Your task to perform on an android device: toggle translation in the chrome app Image 0: 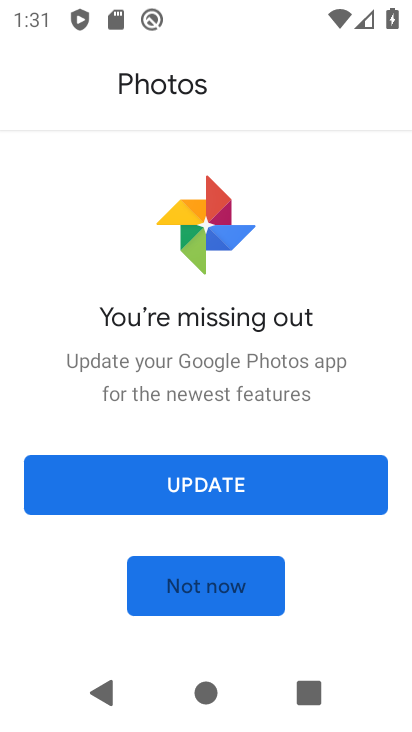
Step 0: press home button
Your task to perform on an android device: toggle translation in the chrome app Image 1: 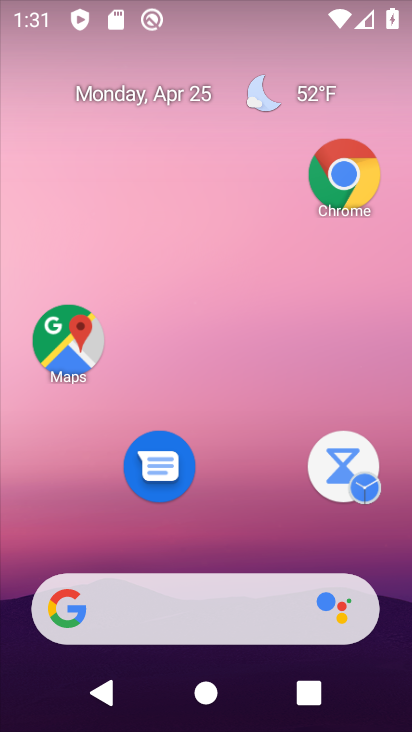
Step 1: click (337, 185)
Your task to perform on an android device: toggle translation in the chrome app Image 2: 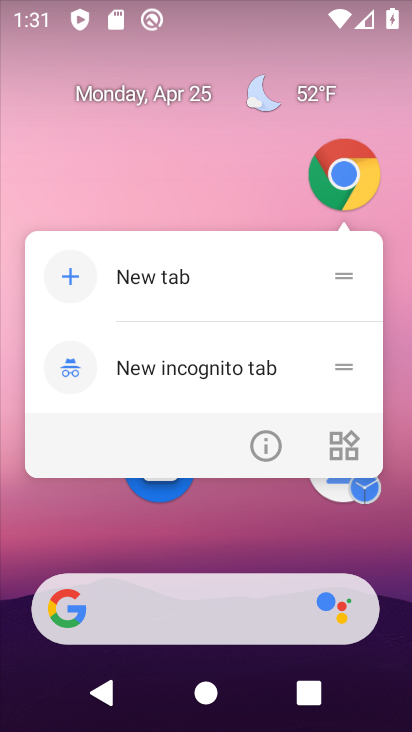
Step 2: click (337, 185)
Your task to perform on an android device: toggle translation in the chrome app Image 3: 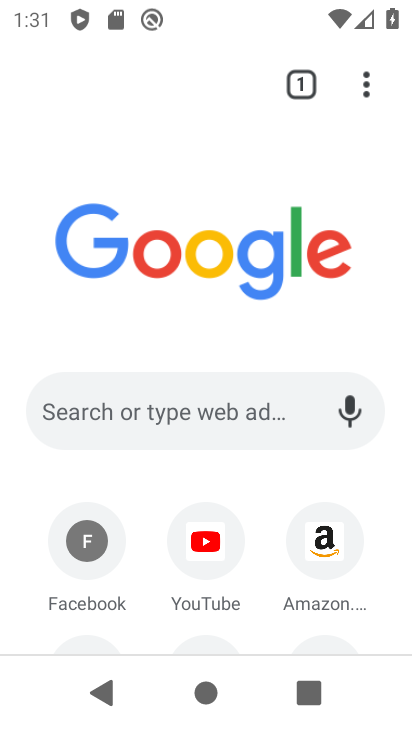
Step 3: click (364, 84)
Your task to perform on an android device: toggle translation in the chrome app Image 4: 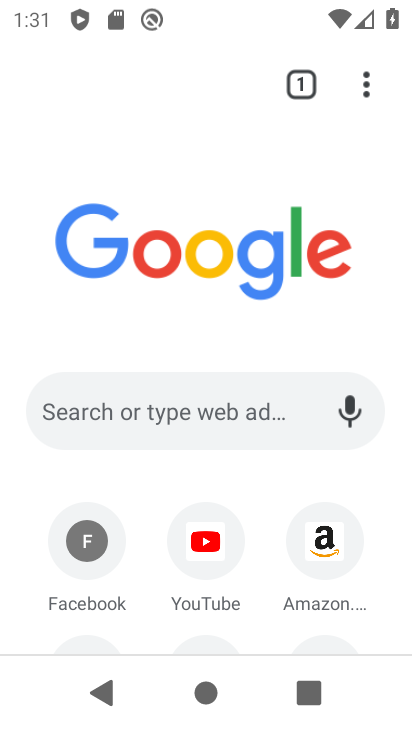
Step 4: click (364, 84)
Your task to perform on an android device: toggle translation in the chrome app Image 5: 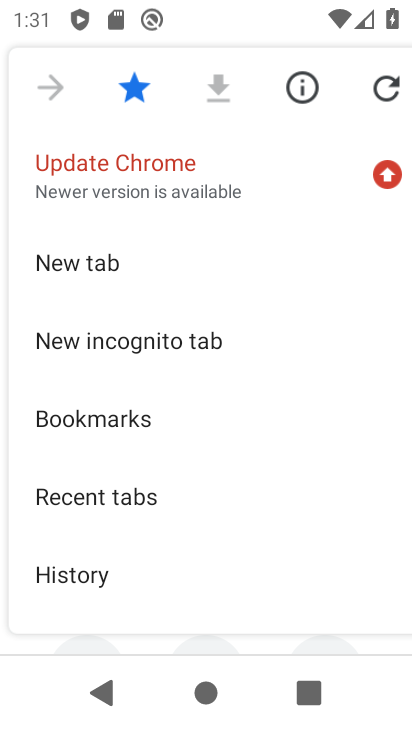
Step 5: drag from (262, 529) to (248, 238)
Your task to perform on an android device: toggle translation in the chrome app Image 6: 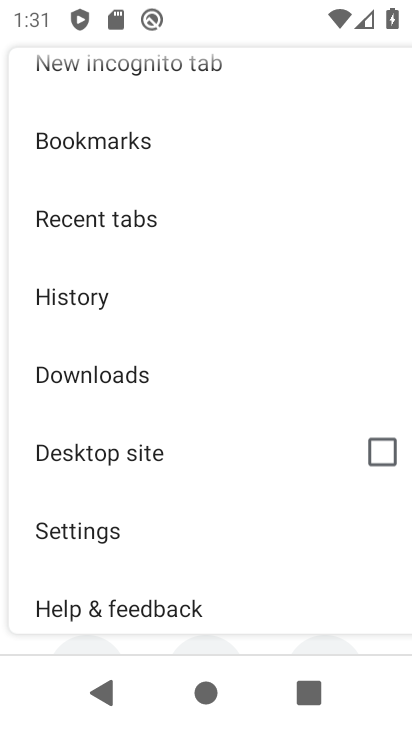
Step 6: click (130, 537)
Your task to perform on an android device: toggle translation in the chrome app Image 7: 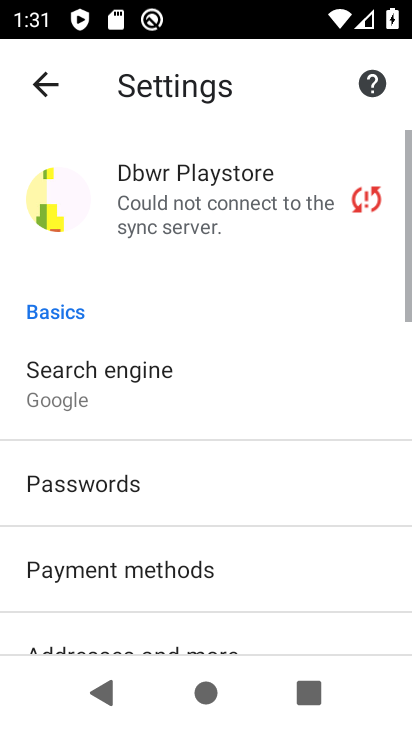
Step 7: drag from (130, 537) to (235, 109)
Your task to perform on an android device: toggle translation in the chrome app Image 8: 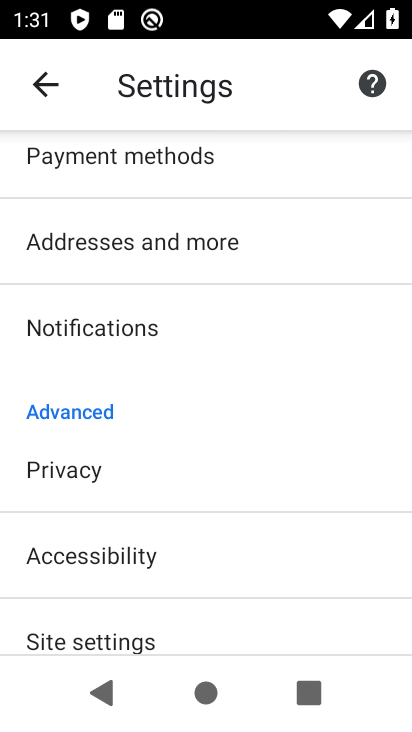
Step 8: drag from (236, 570) to (215, 215)
Your task to perform on an android device: toggle translation in the chrome app Image 9: 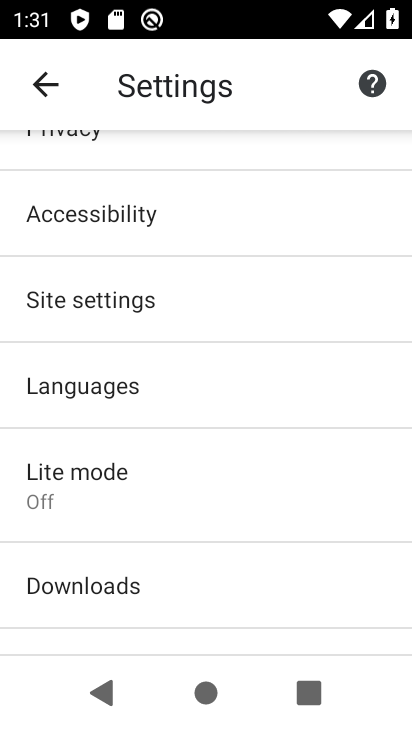
Step 9: click (142, 386)
Your task to perform on an android device: toggle translation in the chrome app Image 10: 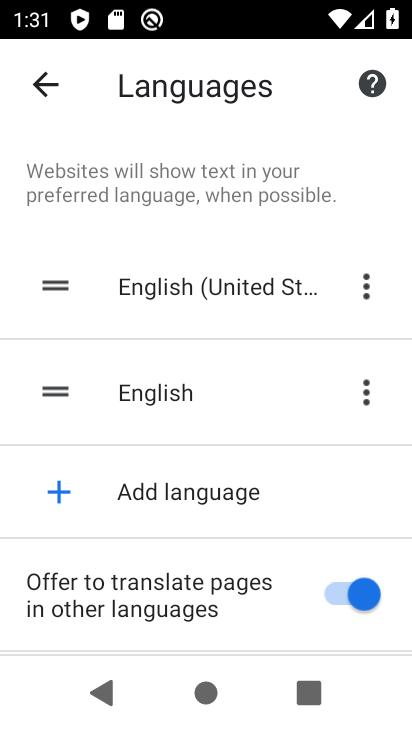
Step 10: drag from (276, 522) to (269, 195)
Your task to perform on an android device: toggle translation in the chrome app Image 11: 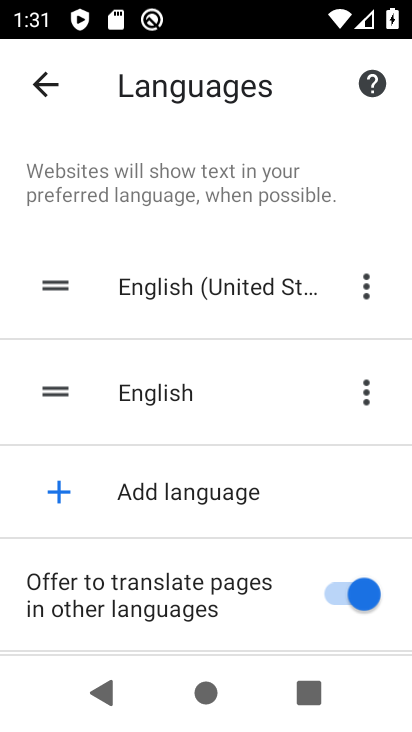
Step 11: click (347, 575)
Your task to perform on an android device: toggle translation in the chrome app Image 12: 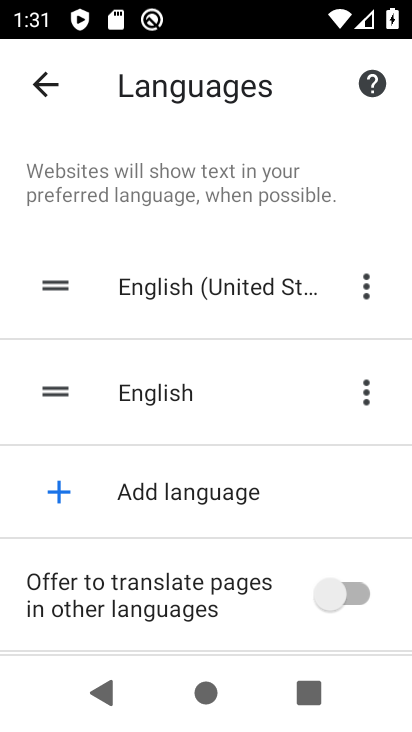
Step 12: task complete